Your task to perform on an android device: open a new tab in the chrome app Image 0: 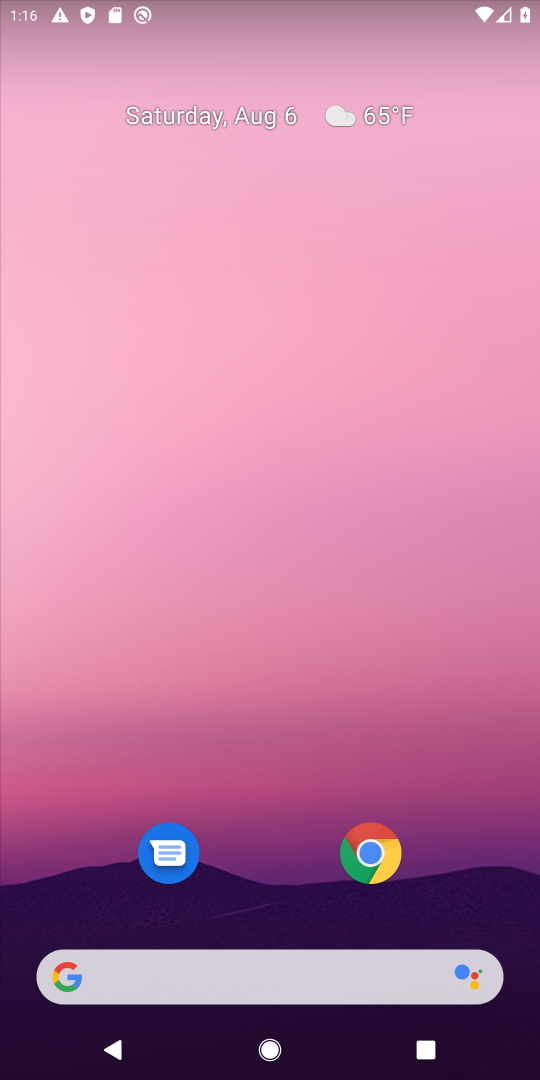
Step 0: click (367, 855)
Your task to perform on an android device: open a new tab in the chrome app Image 1: 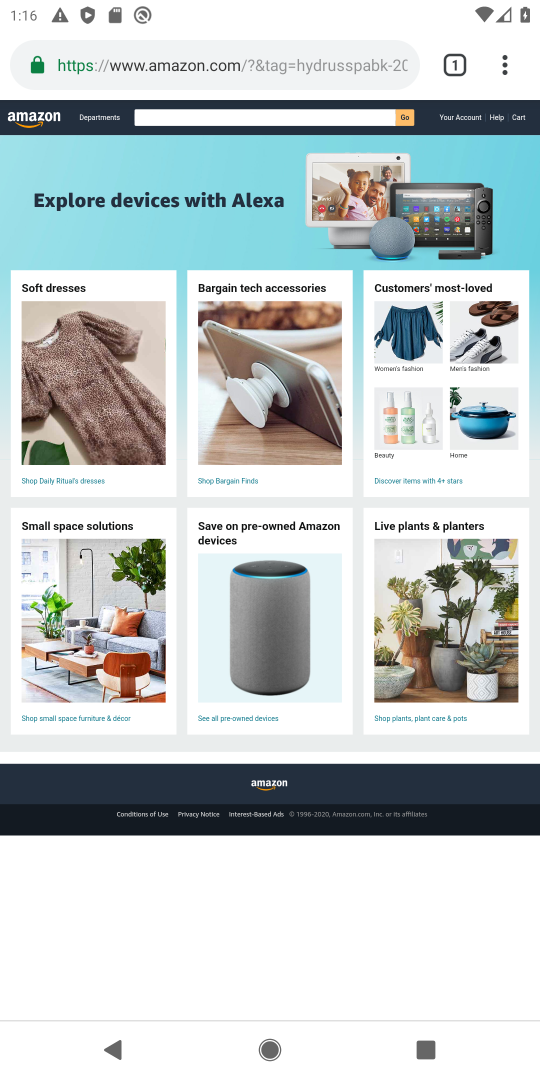
Step 1: click (500, 70)
Your task to perform on an android device: open a new tab in the chrome app Image 2: 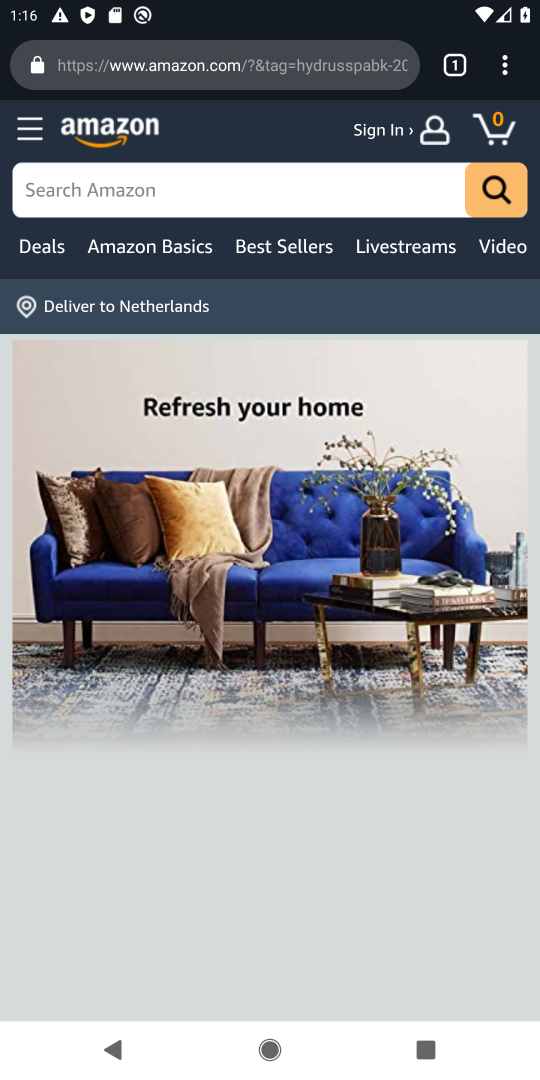
Step 2: click (497, 73)
Your task to perform on an android device: open a new tab in the chrome app Image 3: 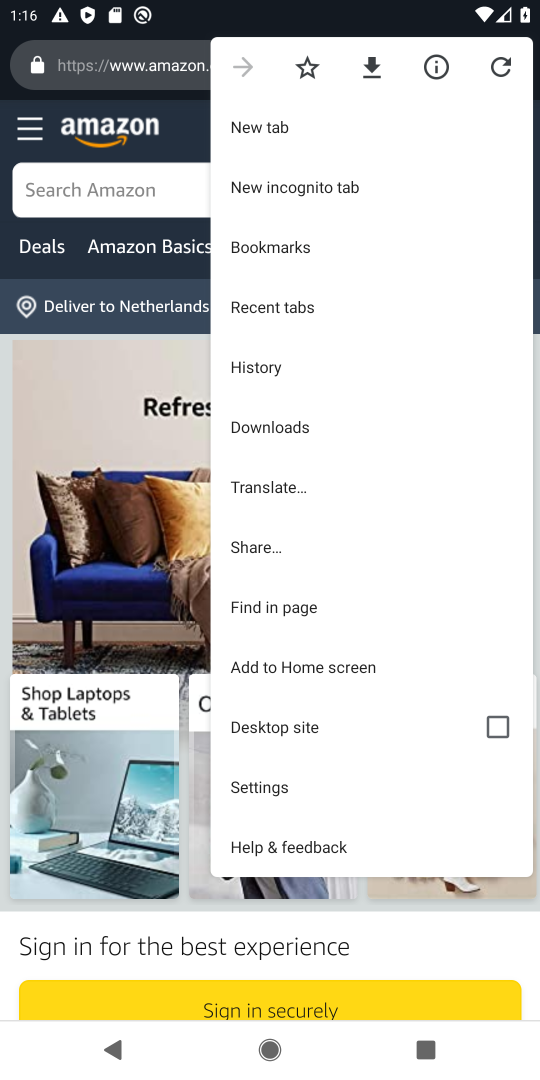
Step 3: click (269, 126)
Your task to perform on an android device: open a new tab in the chrome app Image 4: 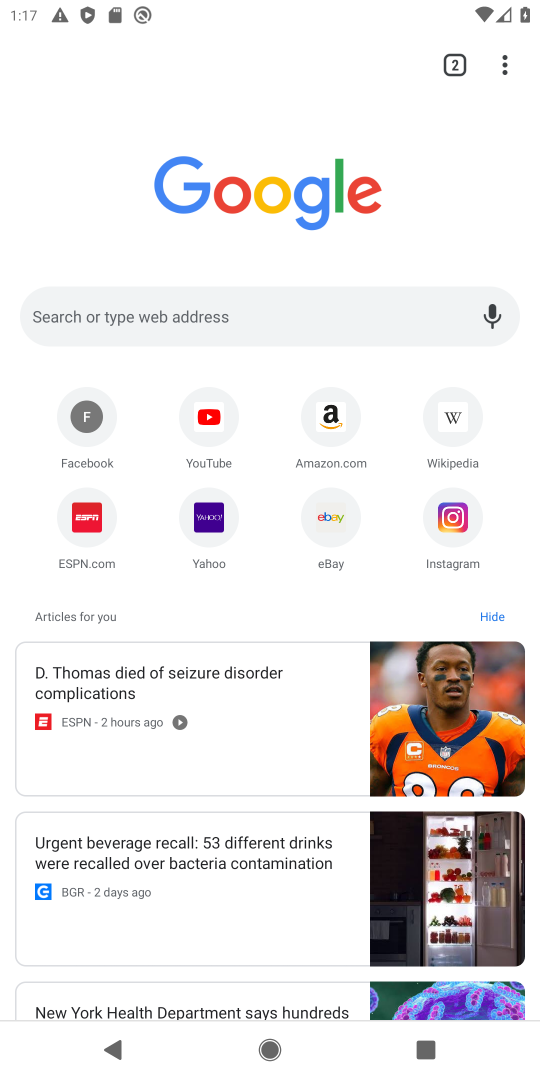
Step 4: task complete